Your task to perform on an android device: toggle wifi Image 0: 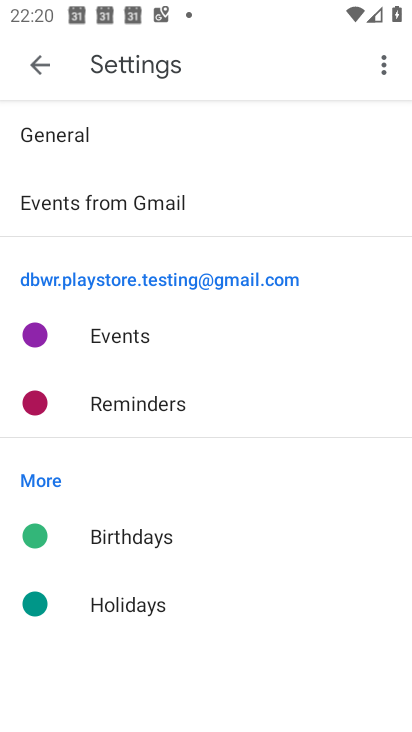
Step 0: press home button
Your task to perform on an android device: toggle wifi Image 1: 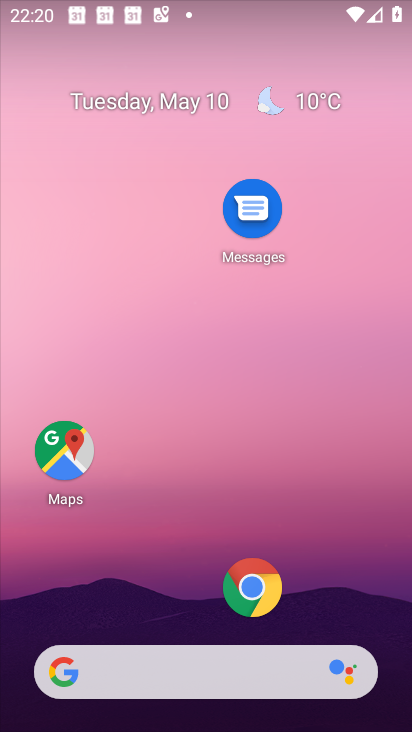
Step 1: drag from (188, 573) to (289, 68)
Your task to perform on an android device: toggle wifi Image 2: 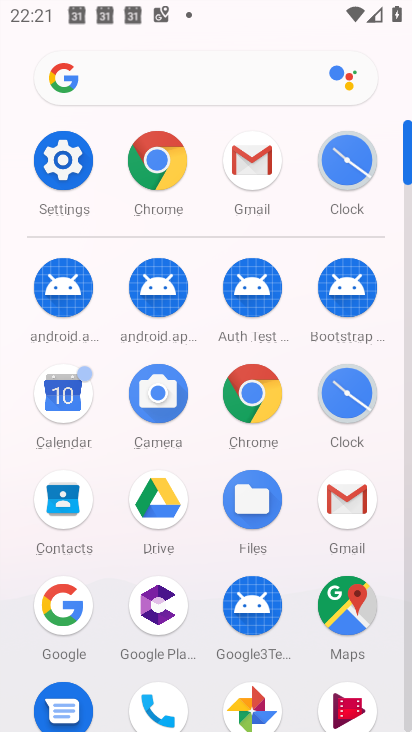
Step 2: click (79, 187)
Your task to perform on an android device: toggle wifi Image 3: 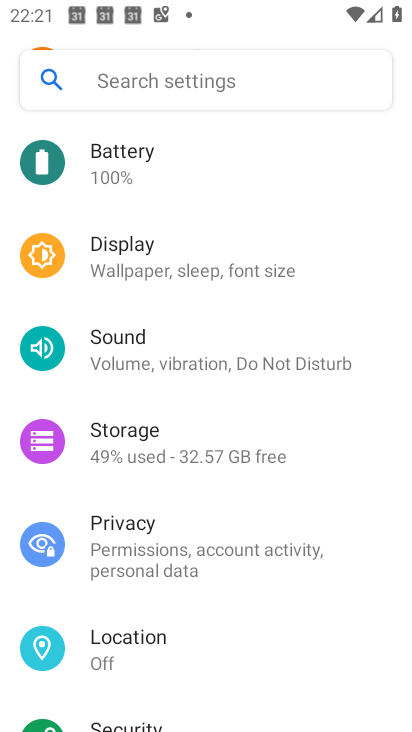
Step 3: drag from (184, 223) to (153, 603)
Your task to perform on an android device: toggle wifi Image 4: 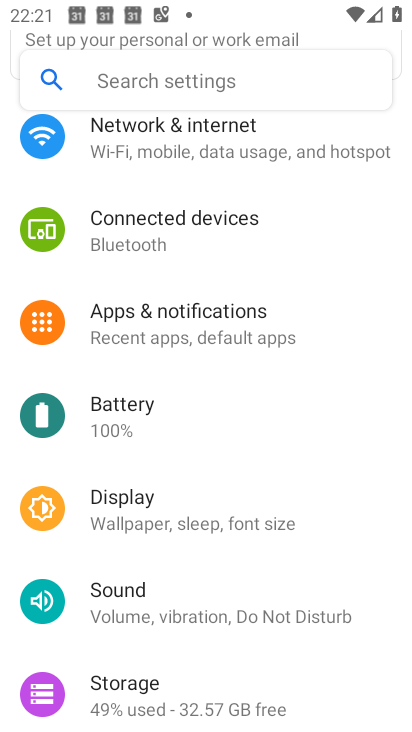
Step 4: click (214, 156)
Your task to perform on an android device: toggle wifi Image 5: 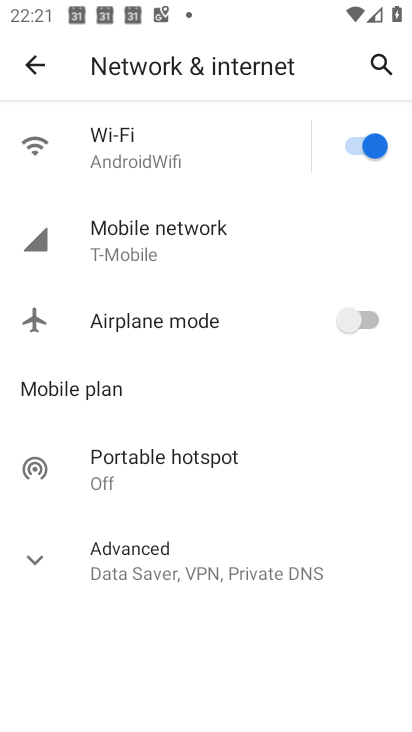
Step 5: click (361, 144)
Your task to perform on an android device: toggle wifi Image 6: 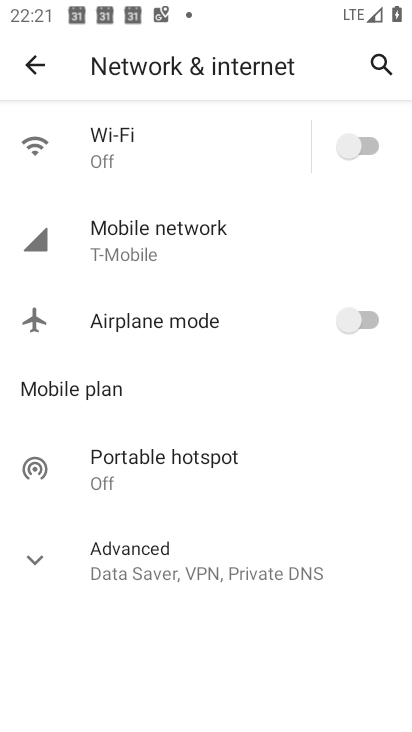
Step 6: task complete